Your task to perform on an android device: Open the Play Movies app and select the watchlist tab. Image 0: 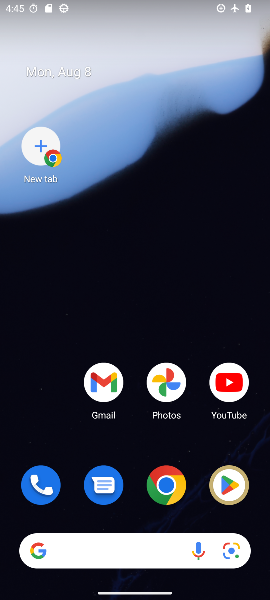
Step 0: drag from (202, 589) to (175, 119)
Your task to perform on an android device: Open the Play Movies app and select the watchlist tab. Image 1: 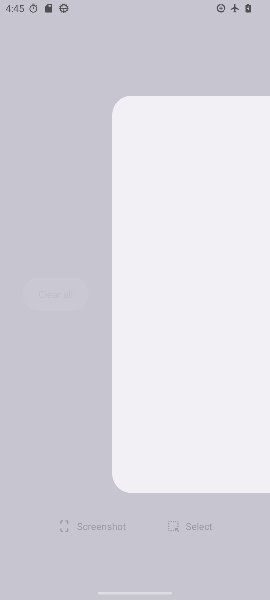
Step 1: task complete